Your task to perform on an android device: turn off airplane mode Image 0: 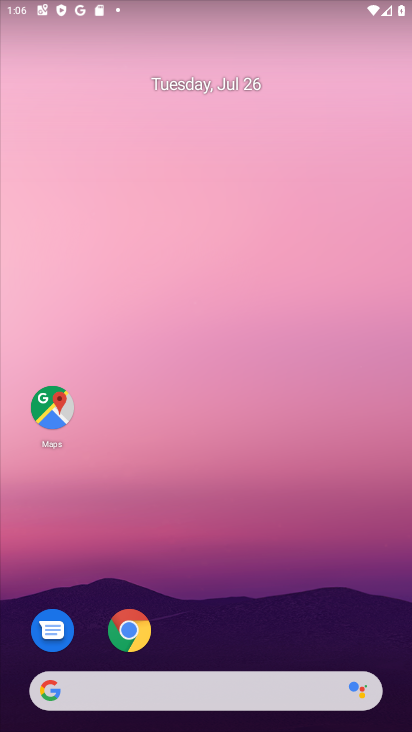
Step 0: drag from (202, 632) to (198, 158)
Your task to perform on an android device: turn off airplane mode Image 1: 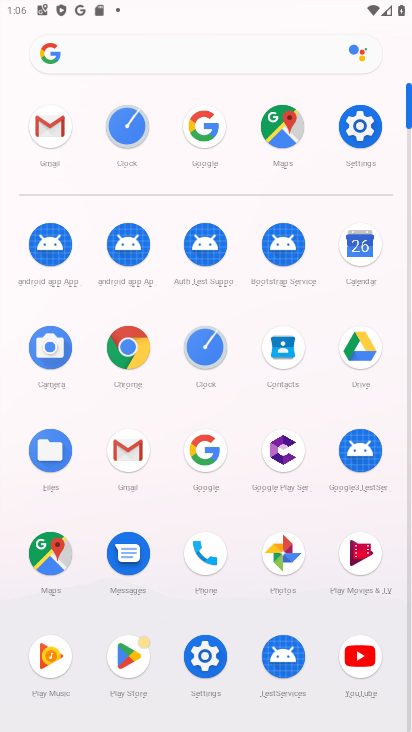
Step 1: click (358, 136)
Your task to perform on an android device: turn off airplane mode Image 2: 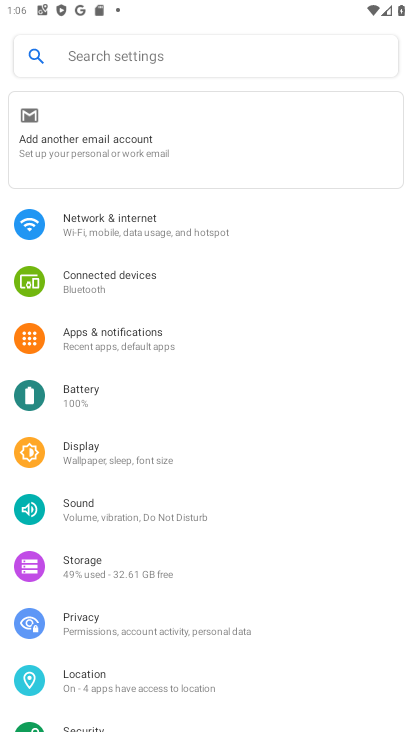
Step 2: click (178, 222)
Your task to perform on an android device: turn off airplane mode Image 3: 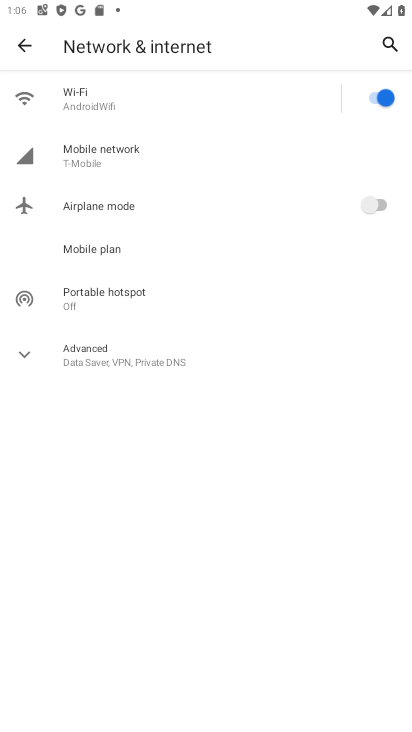
Step 3: task complete